Your task to perform on an android device: turn vacation reply on in the gmail app Image 0: 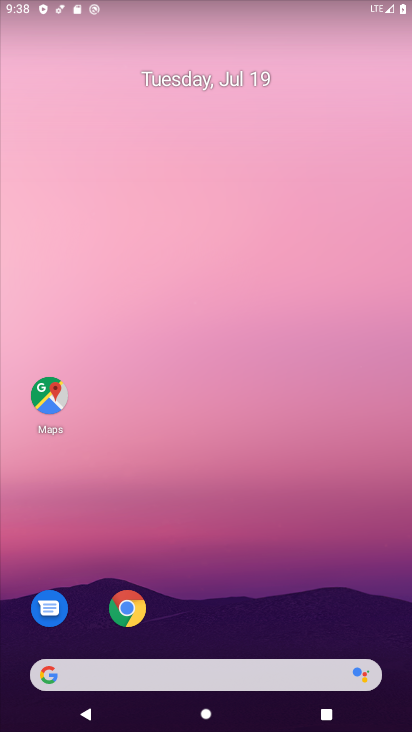
Step 0: drag from (274, 581) to (236, 165)
Your task to perform on an android device: turn vacation reply on in the gmail app Image 1: 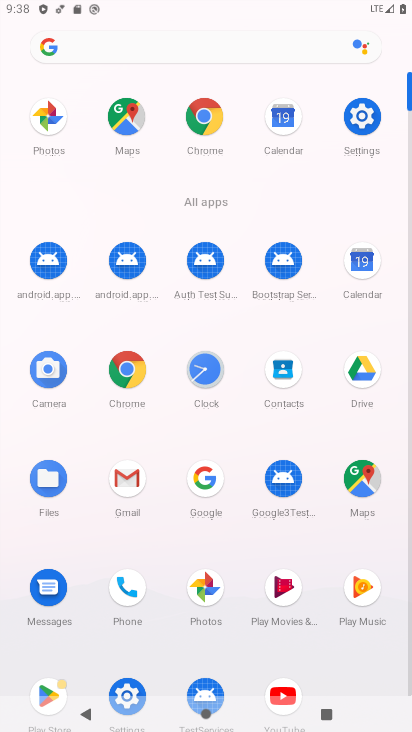
Step 1: click (126, 488)
Your task to perform on an android device: turn vacation reply on in the gmail app Image 2: 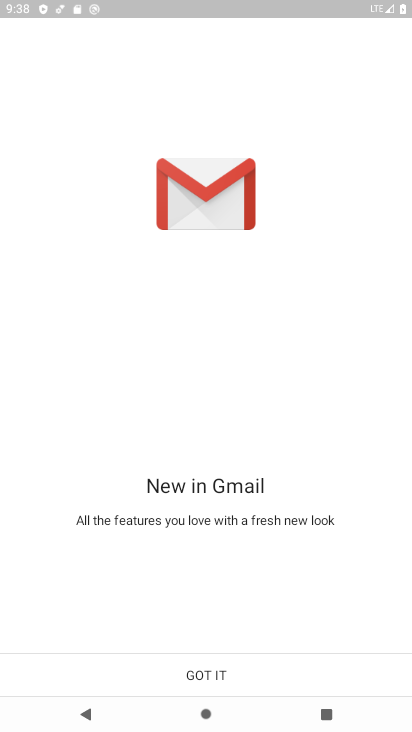
Step 2: click (167, 666)
Your task to perform on an android device: turn vacation reply on in the gmail app Image 3: 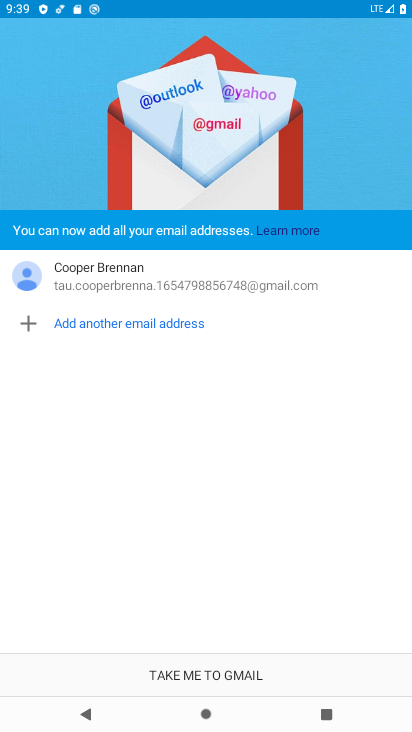
Step 3: click (167, 666)
Your task to perform on an android device: turn vacation reply on in the gmail app Image 4: 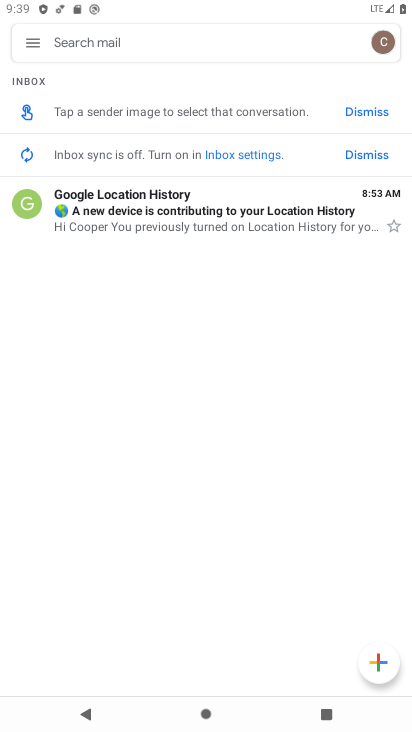
Step 4: click (41, 37)
Your task to perform on an android device: turn vacation reply on in the gmail app Image 5: 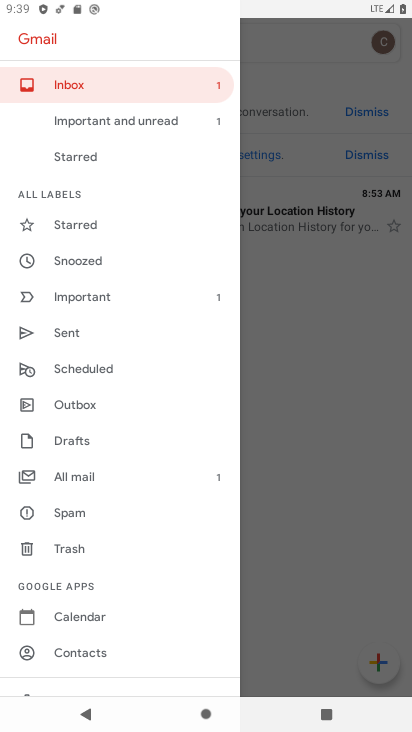
Step 5: click (107, 688)
Your task to perform on an android device: turn vacation reply on in the gmail app Image 6: 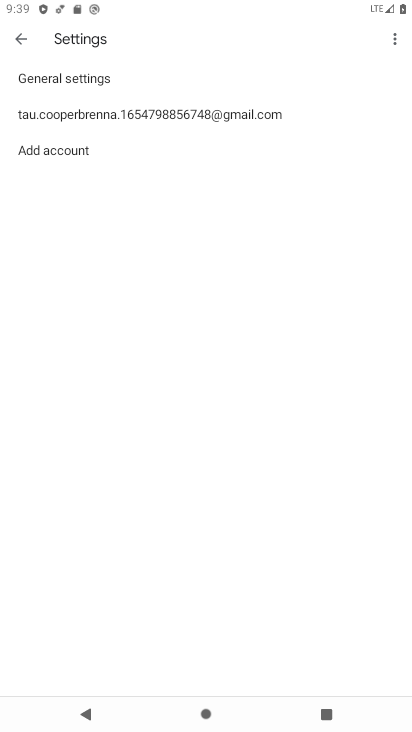
Step 6: click (198, 121)
Your task to perform on an android device: turn vacation reply on in the gmail app Image 7: 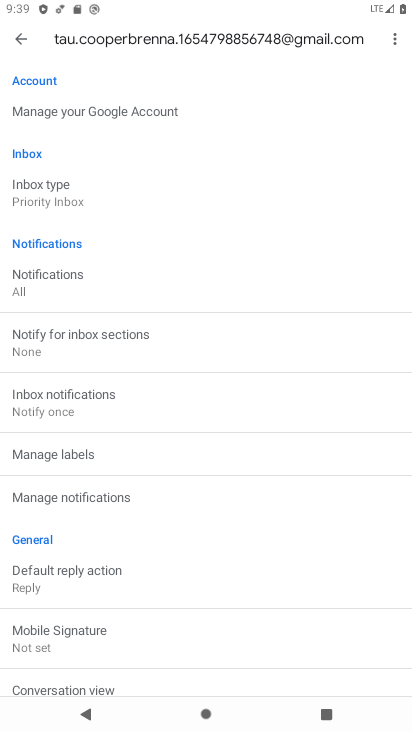
Step 7: drag from (64, 621) to (61, 492)
Your task to perform on an android device: turn vacation reply on in the gmail app Image 8: 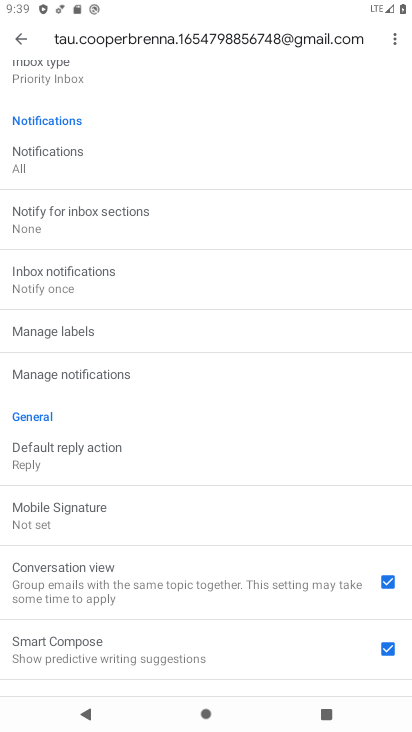
Step 8: drag from (77, 641) to (77, 458)
Your task to perform on an android device: turn vacation reply on in the gmail app Image 9: 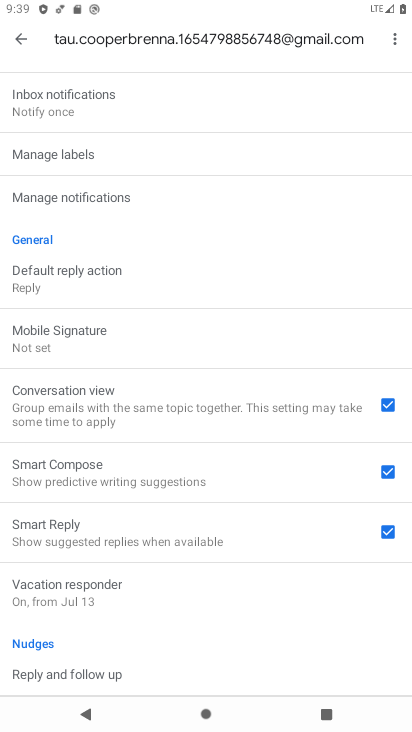
Step 9: click (77, 584)
Your task to perform on an android device: turn vacation reply on in the gmail app Image 10: 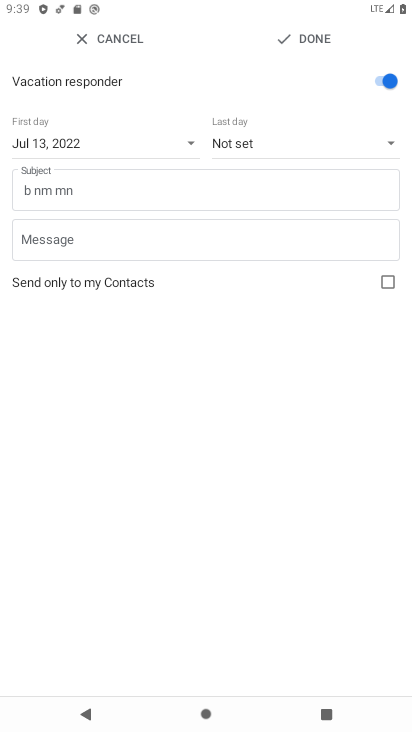
Step 10: click (320, 46)
Your task to perform on an android device: turn vacation reply on in the gmail app Image 11: 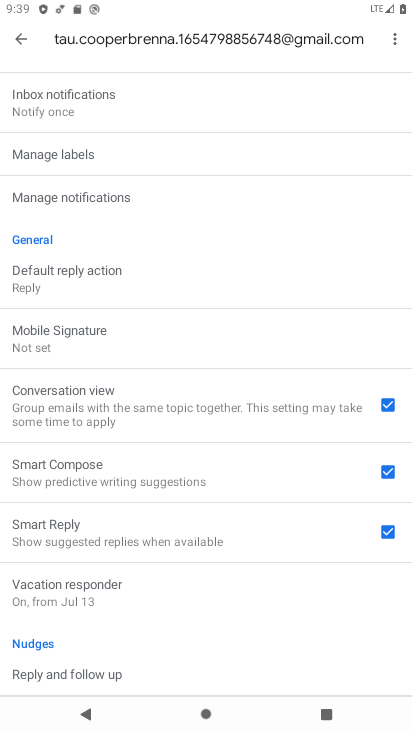
Step 11: task complete